Your task to perform on an android device: Open my contact list Image 0: 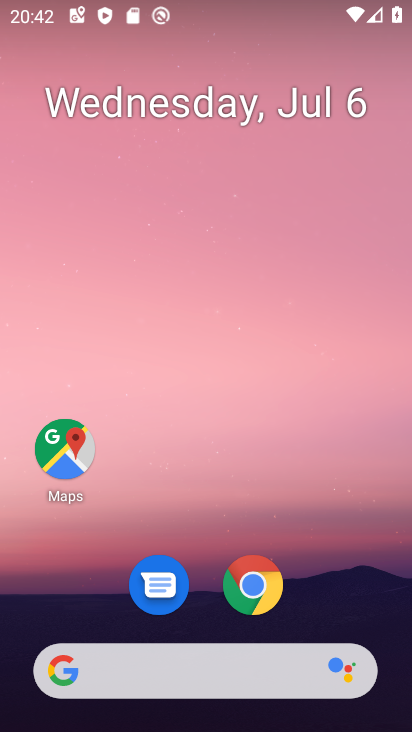
Step 0: drag from (229, 509) to (215, 30)
Your task to perform on an android device: Open my contact list Image 1: 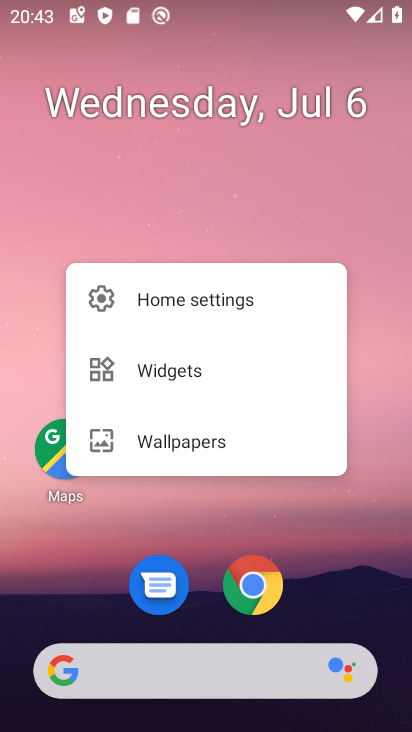
Step 1: click (340, 593)
Your task to perform on an android device: Open my contact list Image 2: 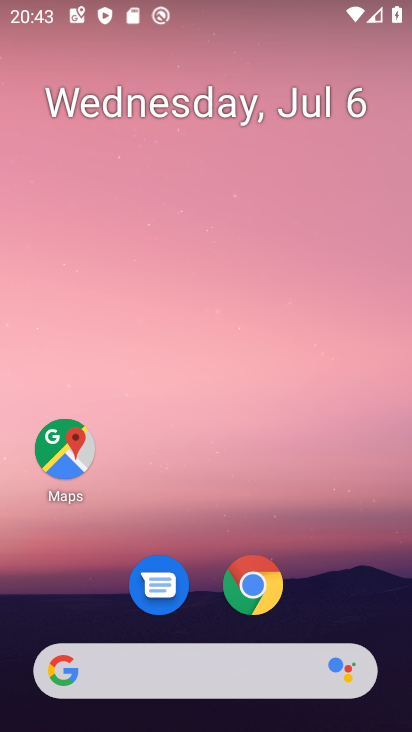
Step 2: drag from (329, 590) to (305, 31)
Your task to perform on an android device: Open my contact list Image 3: 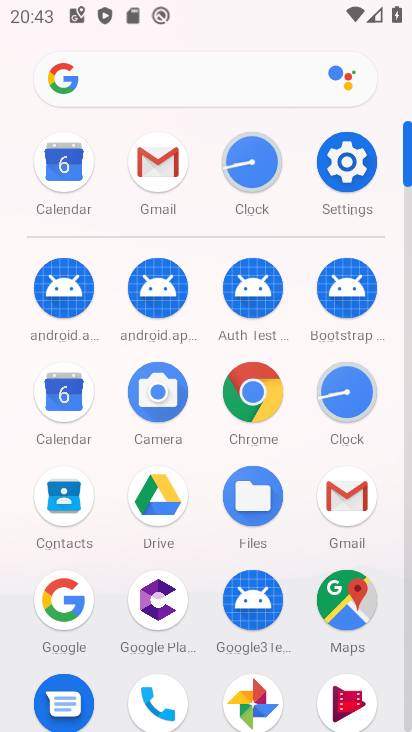
Step 3: click (69, 500)
Your task to perform on an android device: Open my contact list Image 4: 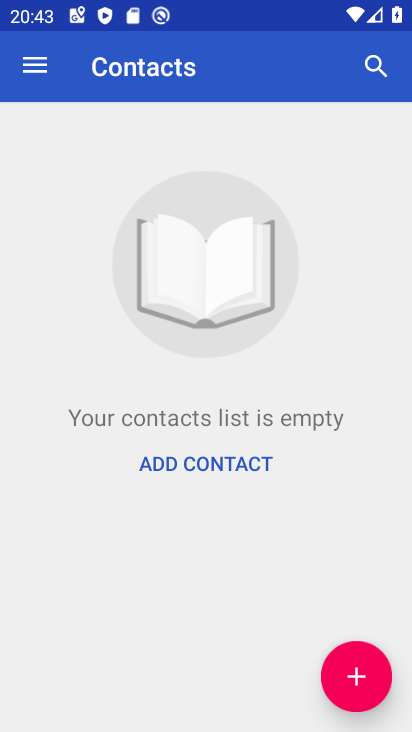
Step 4: task complete